Your task to perform on an android device: Go to Google Image 0: 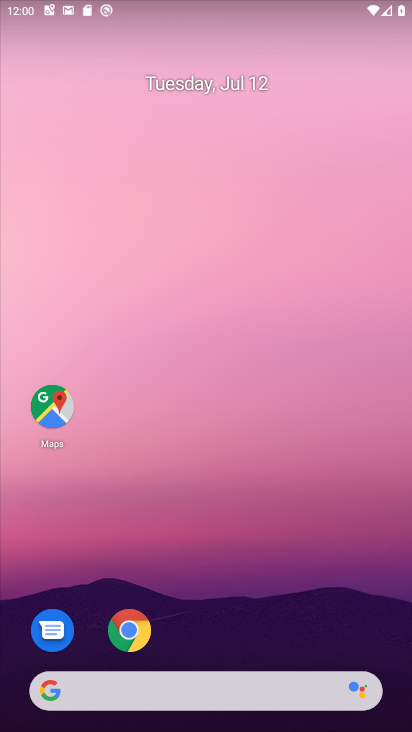
Step 0: drag from (198, 608) to (237, 206)
Your task to perform on an android device: Go to Google Image 1: 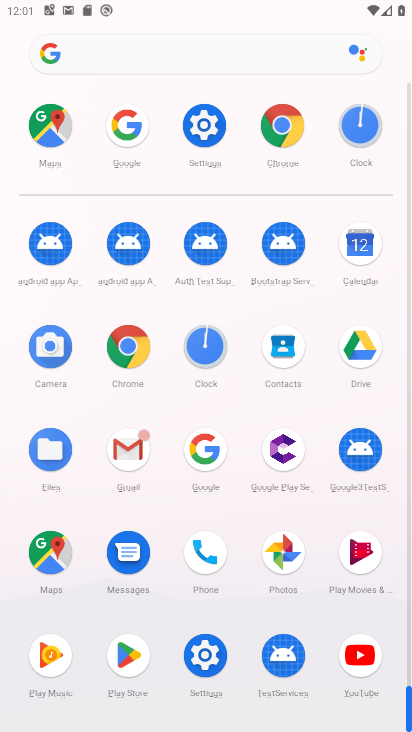
Step 1: drag from (110, 531) to (135, 399)
Your task to perform on an android device: Go to Google Image 2: 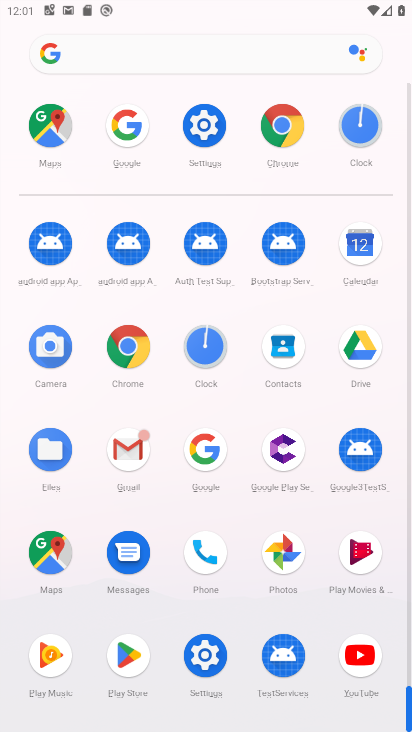
Step 2: click (219, 451)
Your task to perform on an android device: Go to Google Image 3: 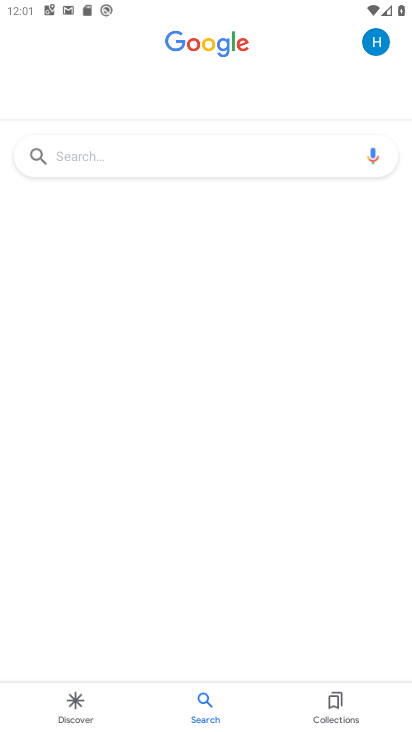
Step 3: task complete